Your task to perform on an android device: Search for hotels in Tokyo Image 0: 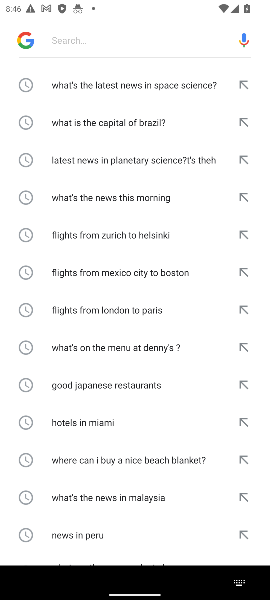
Step 0: type "hotels in Tokyo"
Your task to perform on an android device: Search for hotels in Tokyo Image 1: 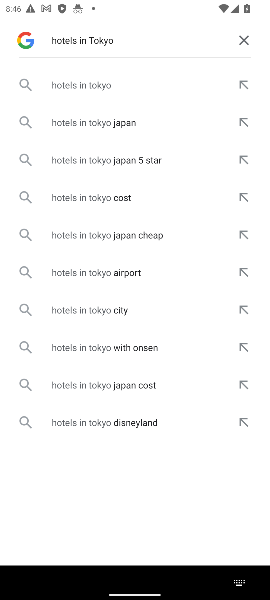
Step 1: press enter
Your task to perform on an android device: Search for hotels in Tokyo Image 2: 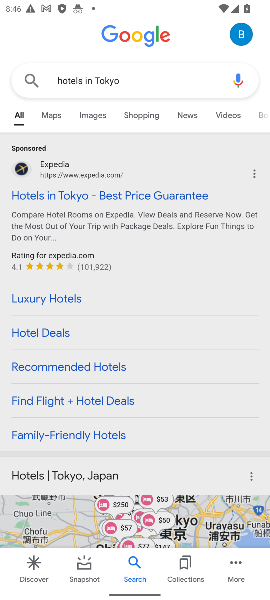
Step 2: task complete